Your task to perform on an android device: check android version Image 0: 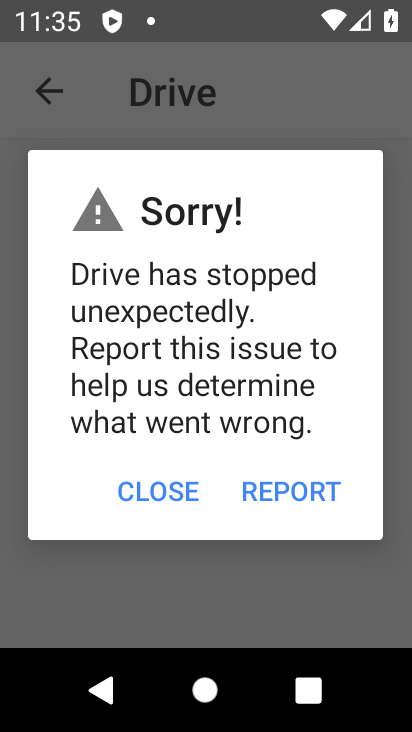
Step 0: press home button
Your task to perform on an android device: check android version Image 1: 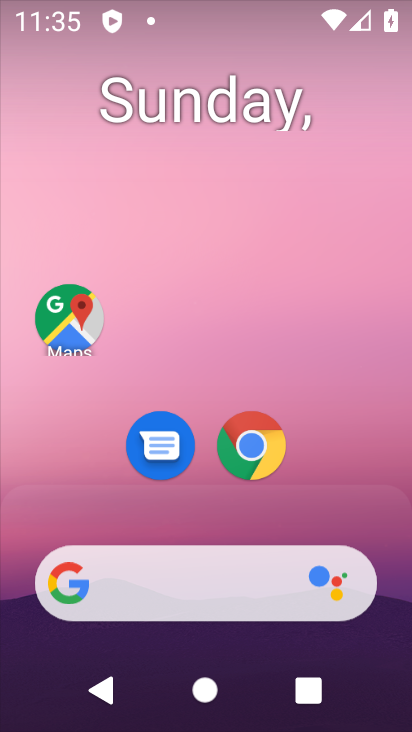
Step 1: drag from (239, 515) to (239, 76)
Your task to perform on an android device: check android version Image 2: 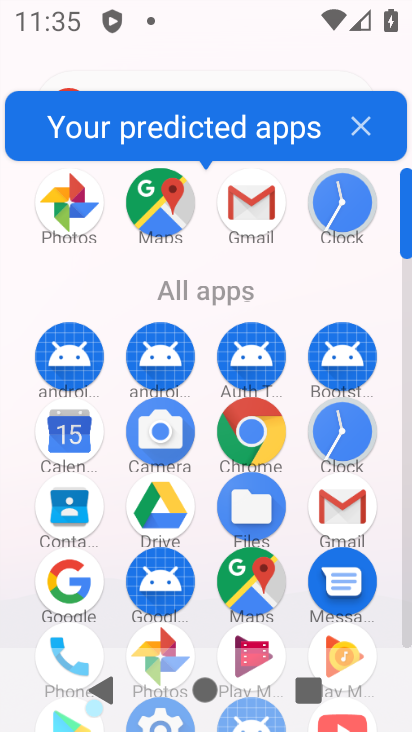
Step 2: drag from (291, 597) to (321, 305)
Your task to perform on an android device: check android version Image 3: 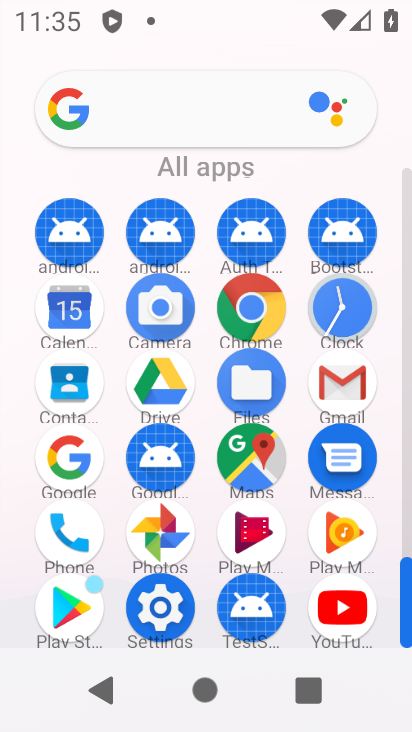
Step 3: click (168, 612)
Your task to perform on an android device: check android version Image 4: 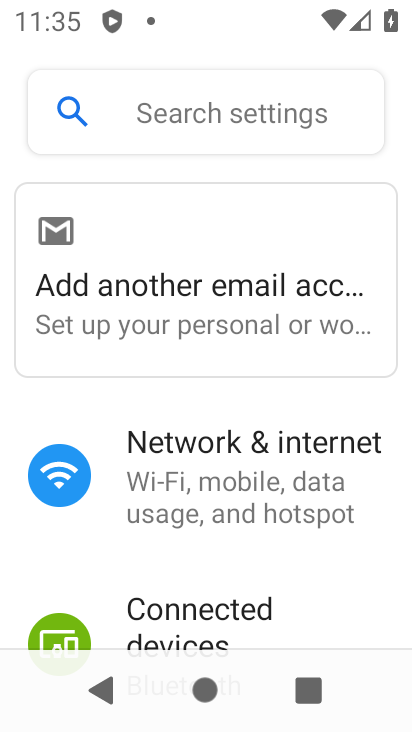
Step 4: drag from (229, 564) to (262, 274)
Your task to perform on an android device: check android version Image 5: 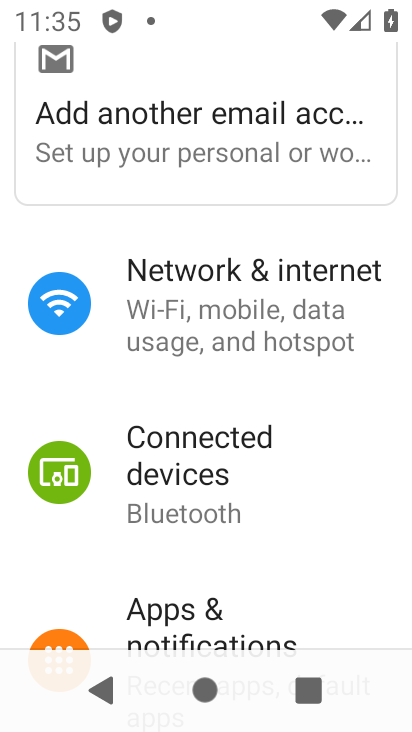
Step 5: drag from (242, 471) to (274, 250)
Your task to perform on an android device: check android version Image 6: 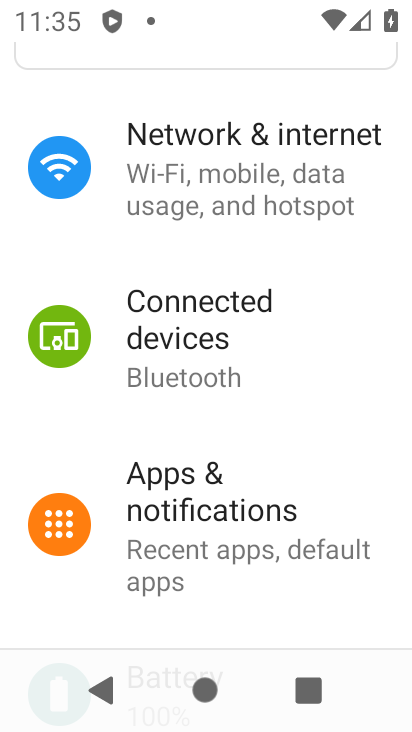
Step 6: drag from (216, 592) to (271, 177)
Your task to perform on an android device: check android version Image 7: 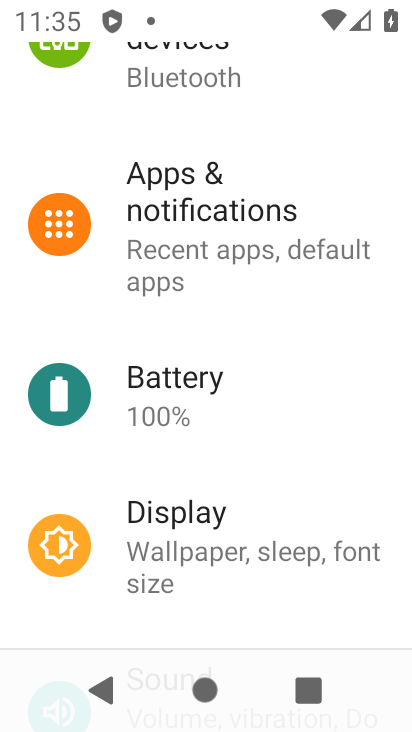
Step 7: drag from (266, 600) to (266, 254)
Your task to perform on an android device: check android version Image 8: 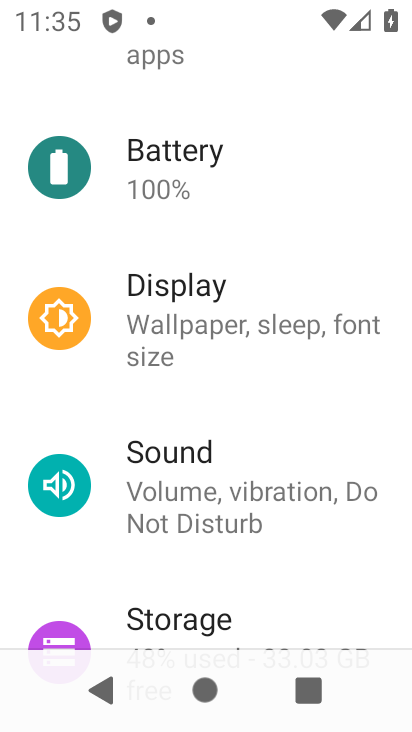
Step 8: drag from (223, 533) to (268, 153)
Your task to perform on an android device: check android version Image 9: 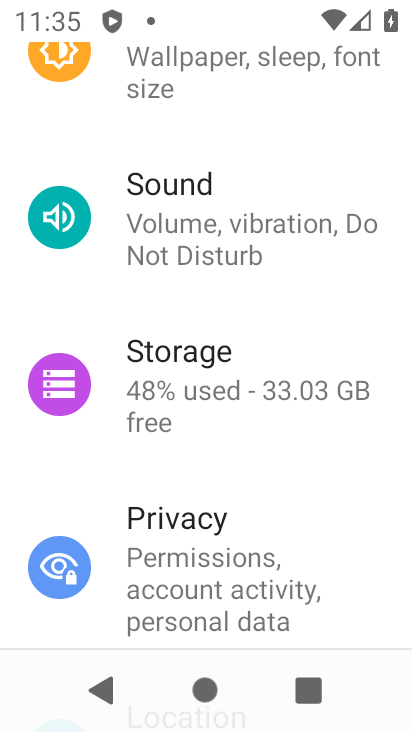
Step 9: drag from (294, 534) to (293, 230)
Your task to perform on an android device: check android version Image 10: 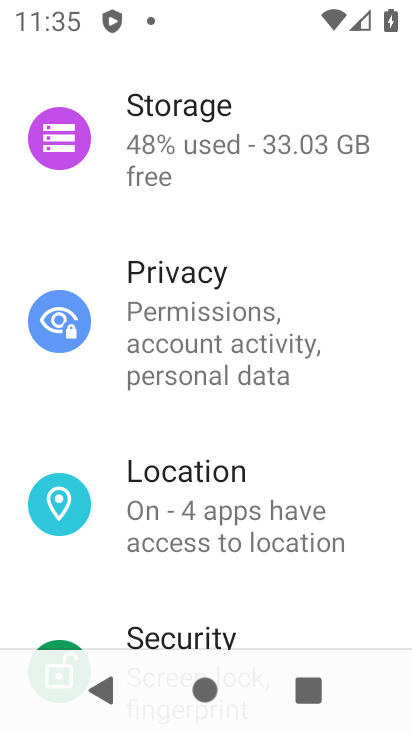
Step 10: drag from (276, 613) to (335, 162)
Your task to perform on an android device: check android version Image 11: 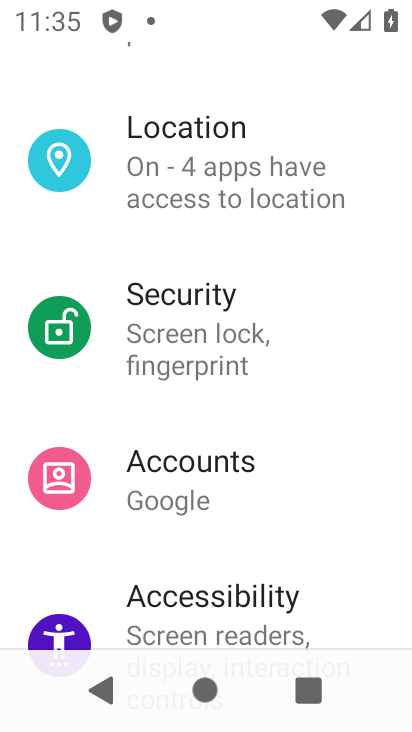
Step 11: drag from (270, 532) to (297, 131)
Your task to perform on an android device: check android version Image 12: 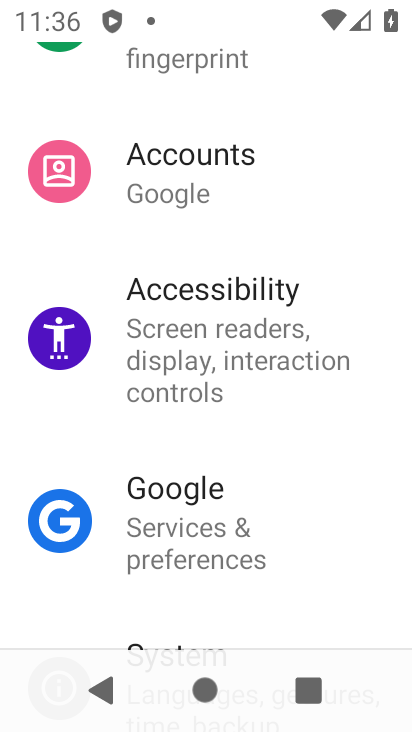
Step 12: drag from (264, 583) to (264, 184)
Your task to perform on an android device: check android version Image 13: 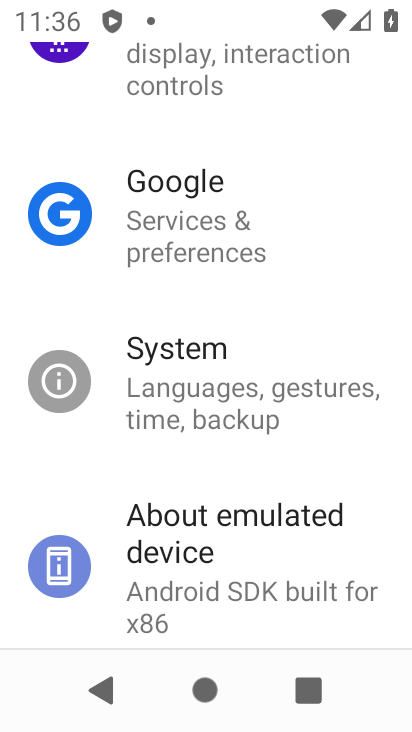
Step 13: click (228, 558)
Your task to perform on an android device: check android version Image 14: 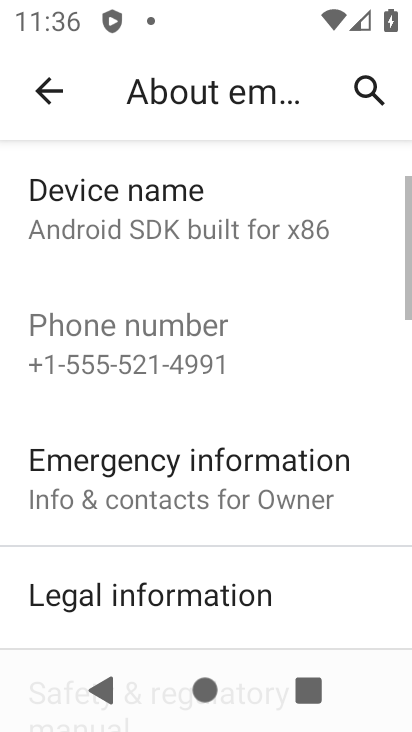
Step 14: task complete